Your task to perform on an android device: toggle wifi Image 0: 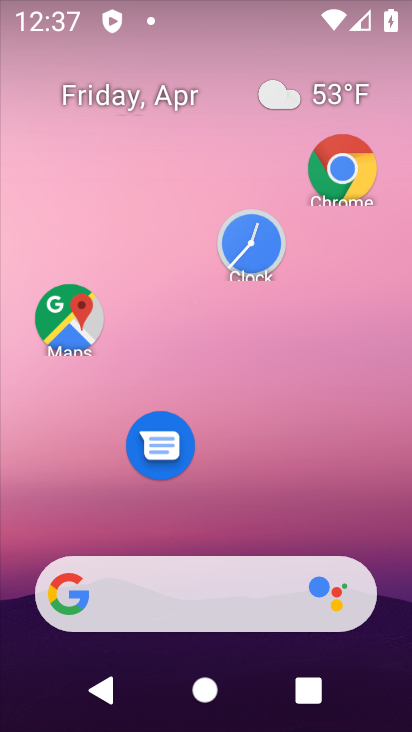
Step 0: drag from (342, 529) to (58, 0)
Your task to perform on an android device: toggle wifi Image 1: 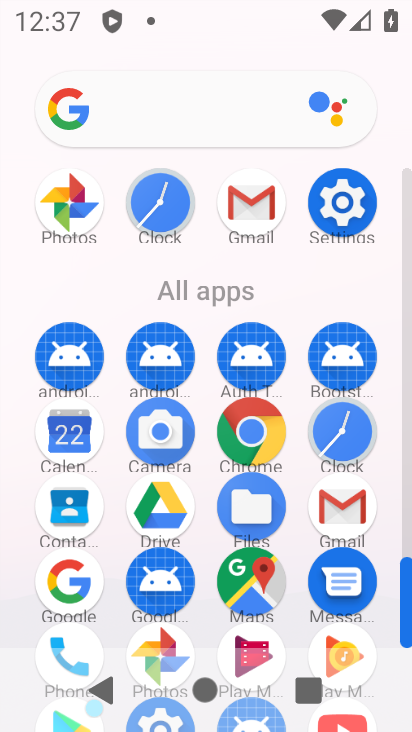
Step 1: click (338, 233)
Your task to perform on an android device: toggle wifi Image 2: 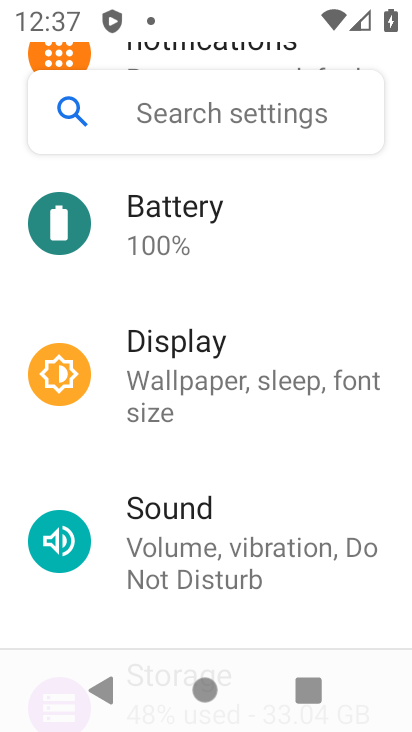
Step 2: drag from (251, 270) to (283, 608)
Your task to perform on an android device: toggle wifi Image 3: 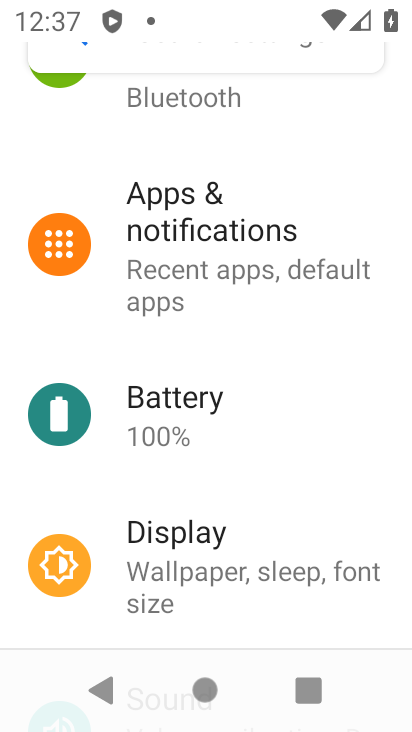
Step 3: drag from (201, 303) to (176, 609)
Your task to perform on an android device: toggle wifi Image 4: 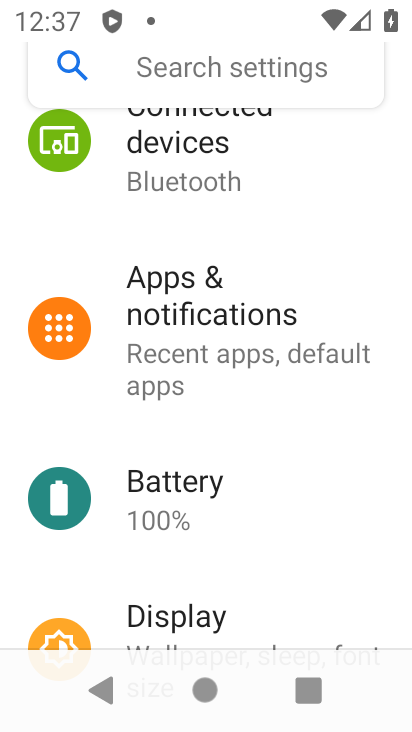
Step 4: drag from (141, 263) to (256, 647)
Your task to perform on an android device: toggle wifi Image 5: 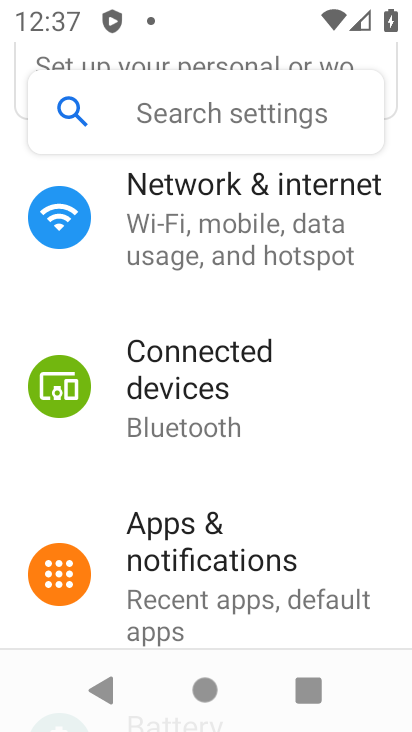
Step 5: click (249, 239)
Your task to perform on an android device: toggle wifi Image 6: 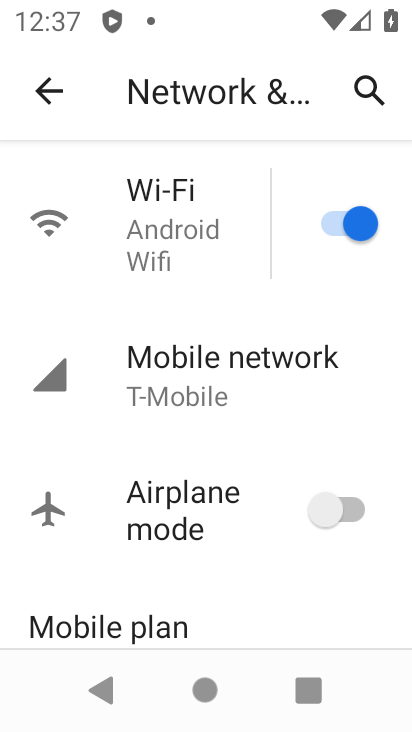
Step 6: click (340, 228)
Your task to perform on an android device: toggle wifi Image 7: 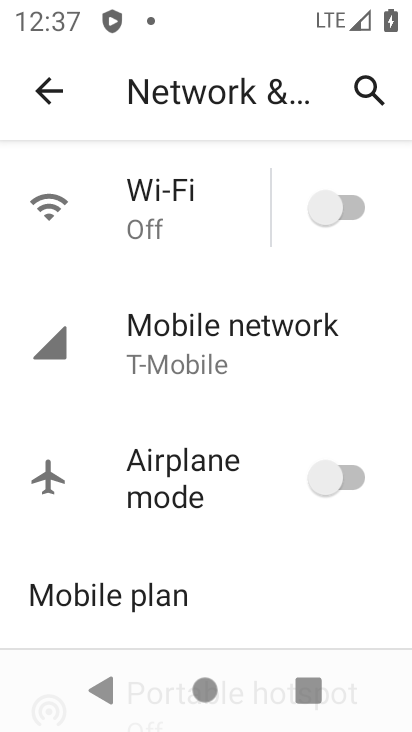
Step 7: task complete